Your task to perform on an android device: Go to Amazon Image 0: 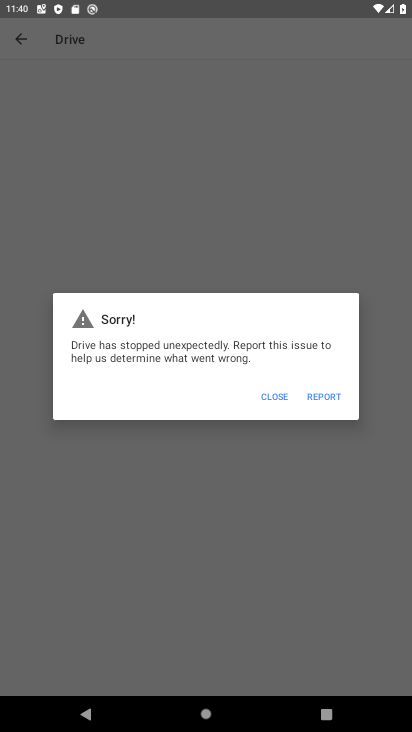
Step 0: click (269, 398)
Your task to perform on an android device: Go to Amazon Image 1: 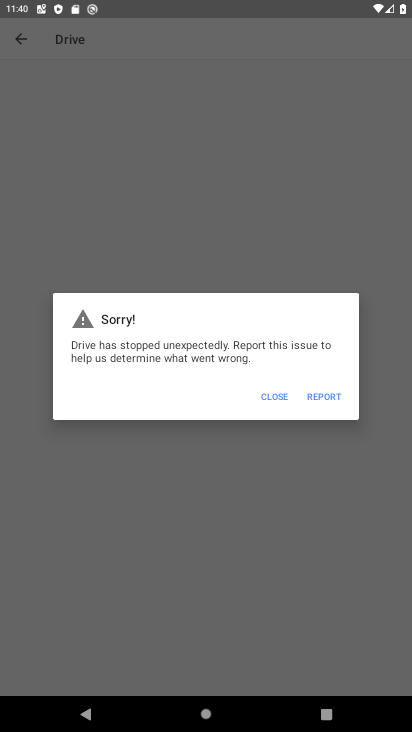
Step 1: click (269, 398)
Your task to perform on an android device: Go to Amazon Image 2: 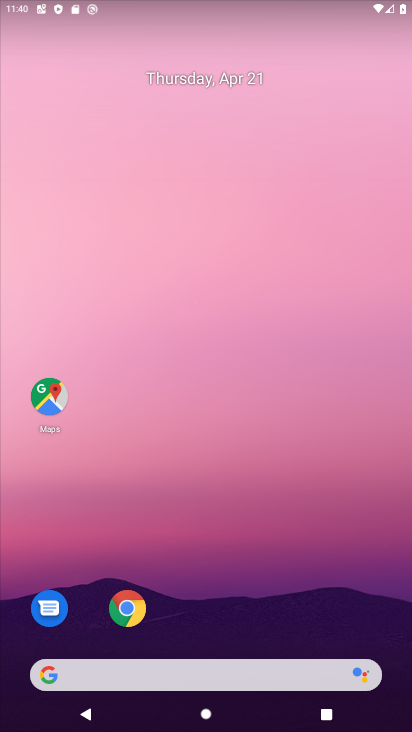
Step 2: drag from (212, 401) to (217, 14)
Your task to perform on an android device: Go to Amazon Image 3: 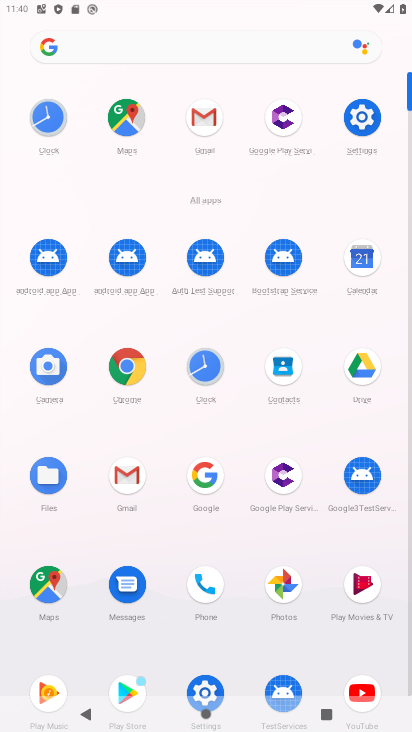
Step 3: click (130, 366)
Your task to perform on an android device: Go to Amazon Image 4: 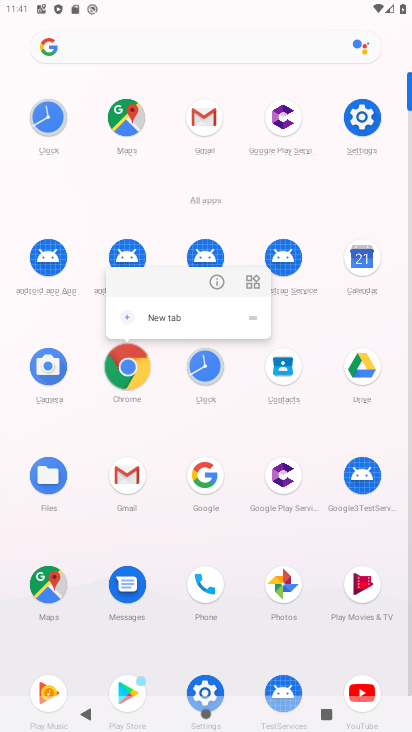
Step 4: click (130, 366)
Your task to perform on an android device: Go to Amazon Image 5: 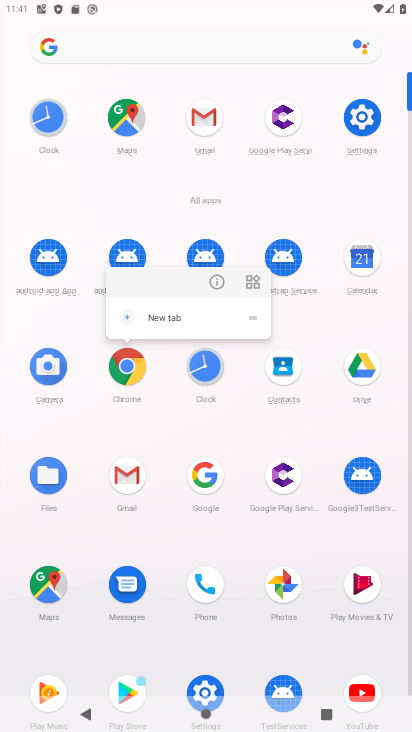
Step 5: click (130, 366)
Your task to perform on an android device: Go to Amazon Image 6: 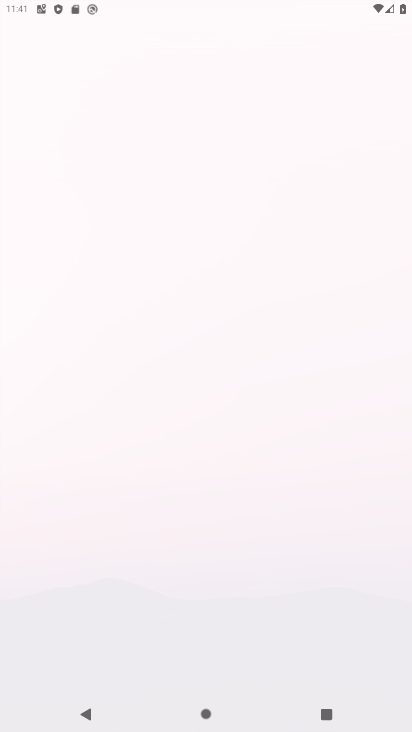
Step 6: click (126, 370)
Your task to perform on an android device: Go to Amazon Image 7: 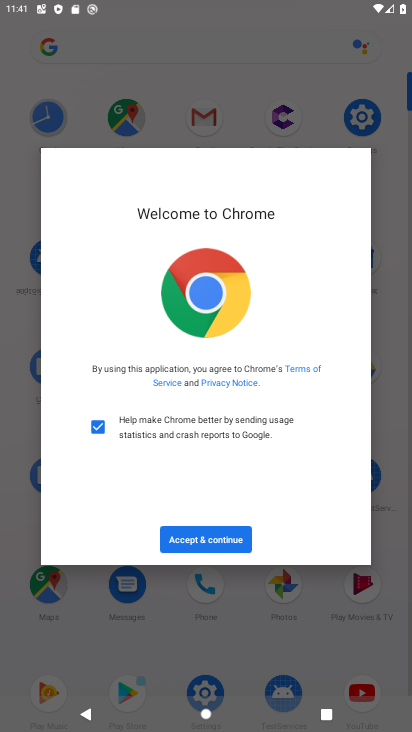
Step 7: click (210, 541)
Your task to perform on an android device: Go to Amazon Image 8: 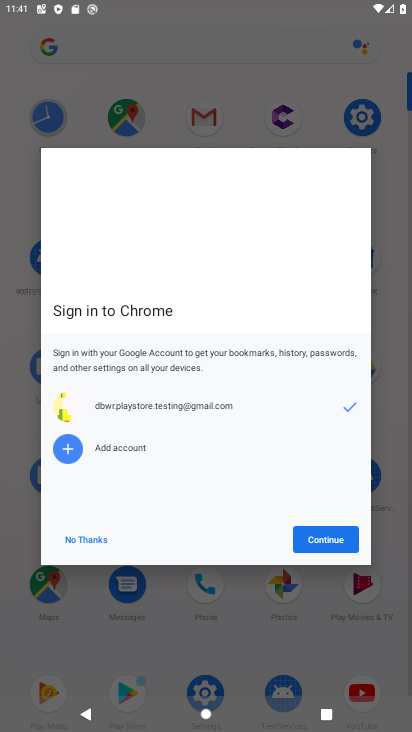
Step 8: click (339, 543)
Your task to perform on an android device: Go to Amazon Image 9: 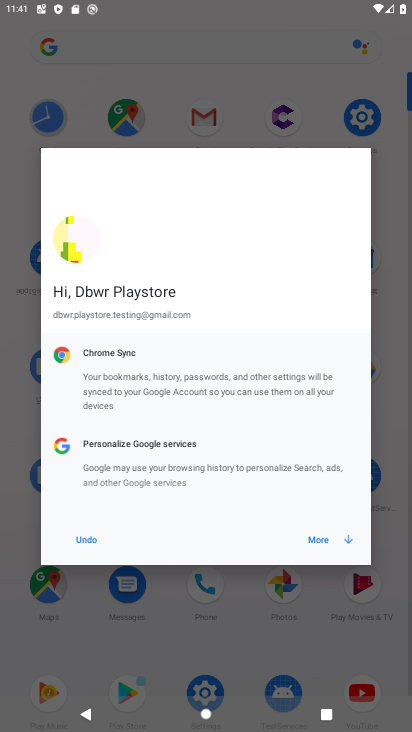
Step 9: click (330, 539)
Your task to perform on an android device: Go to Amazon Image 10: 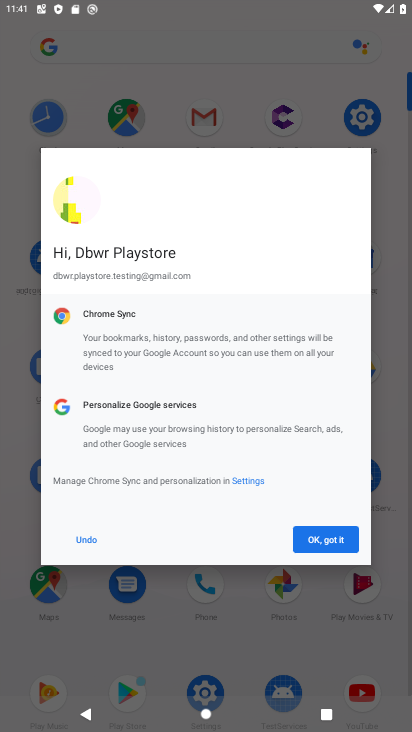
Step 10: click (348, 544)
Your task to perform on an android device: Go to Amazon Image 11: 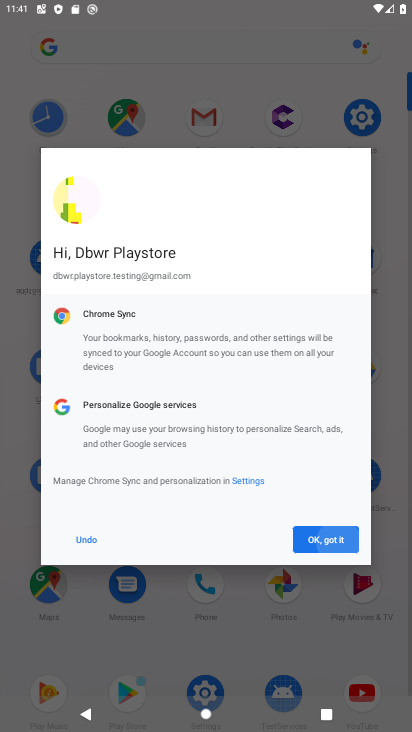
Step 11: click (348, 544)
Your task to perform on an android device: Go to Amazon Image 12: 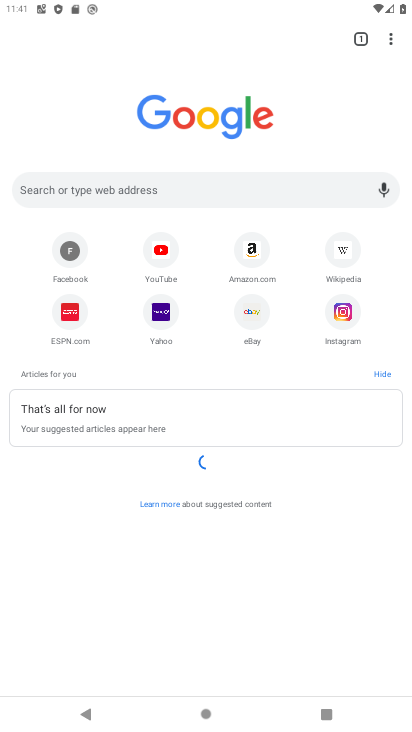
Step 12: click (257, 256)
Your task to perform on an android device: Go to Amazon Image 13: 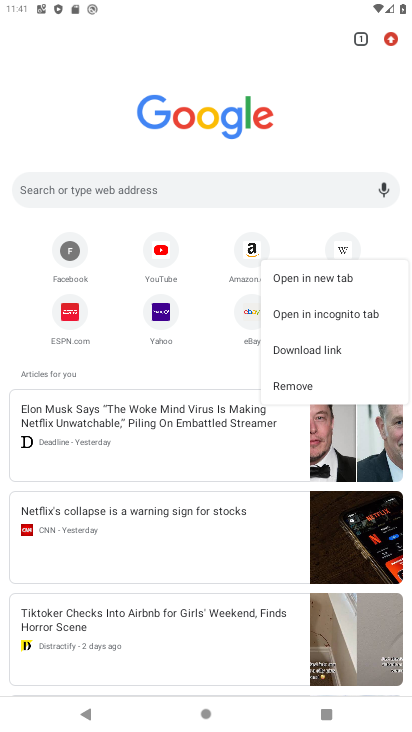
Step 13: click (243, 254)
Your task to perform on an android device: Go to Amazon Image 14: 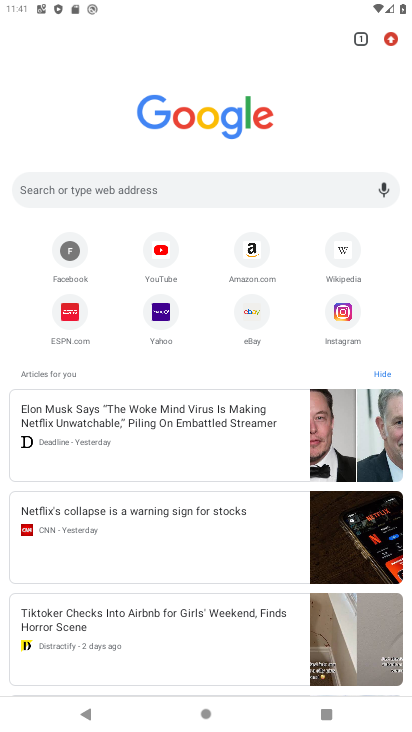
Step 14: click (255, 254)
Your task to perform on an android device: Go to Amazon Image 15: 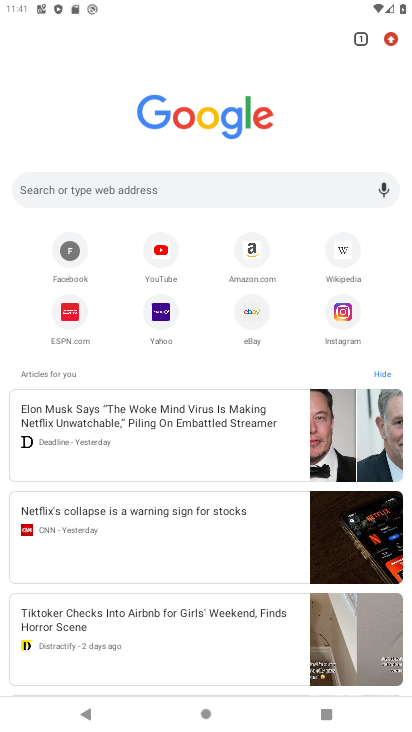
Step 15: click (253, 255)
Your task to perform on an android device: Go to Amazon Image 16: 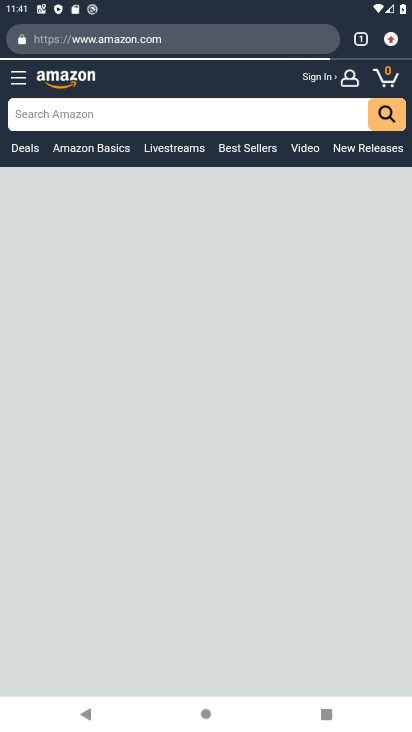
Step 16: task complete